Your task to perform on an android device: Open Google Maps Image 0: 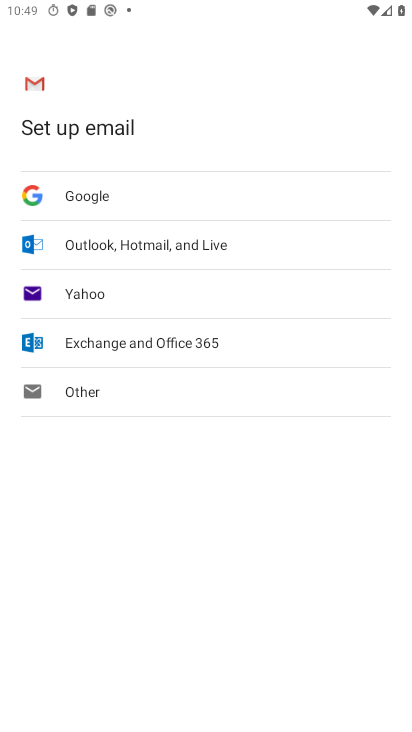
Step 0: press home button
Your task to perform on an android device: Open Google Maps Image 1: 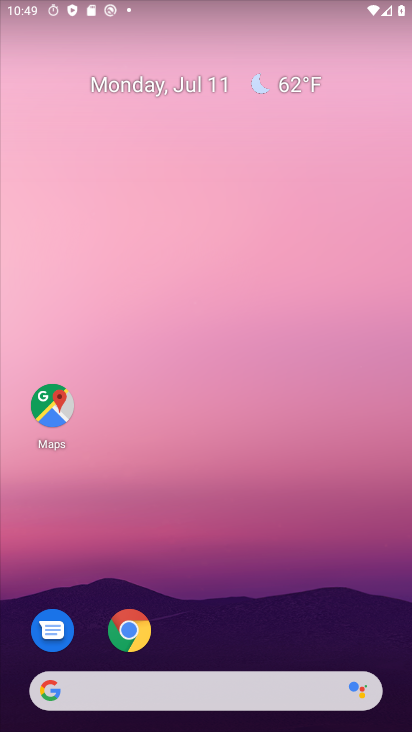
Step 1: click (90, 282)
Your task to perform on an android device: Open Google Maps Image 2: 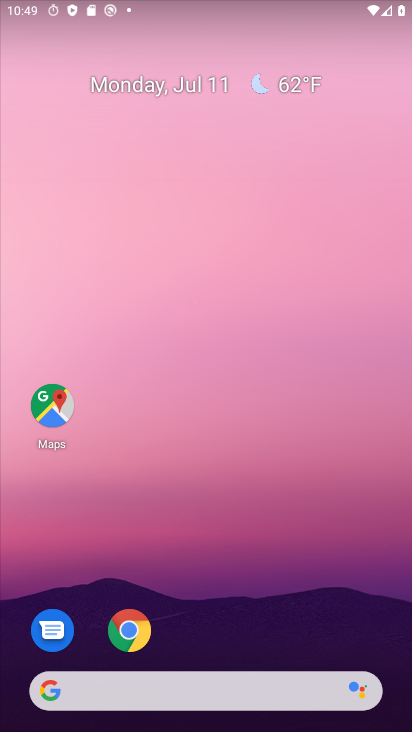
Step 2: drag from (272, 680) to (288, 261)
Your task to perform on an android device: Open Google Maps Image 3: 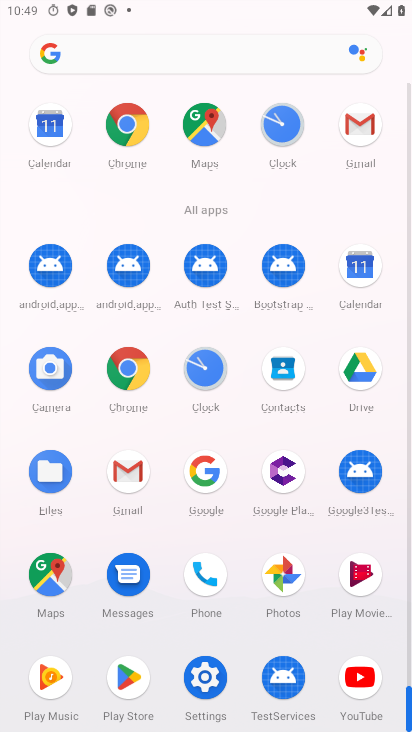
Step 3: click (47, 576)
Your task to perform on an android device: Open Google Maps Image 4: 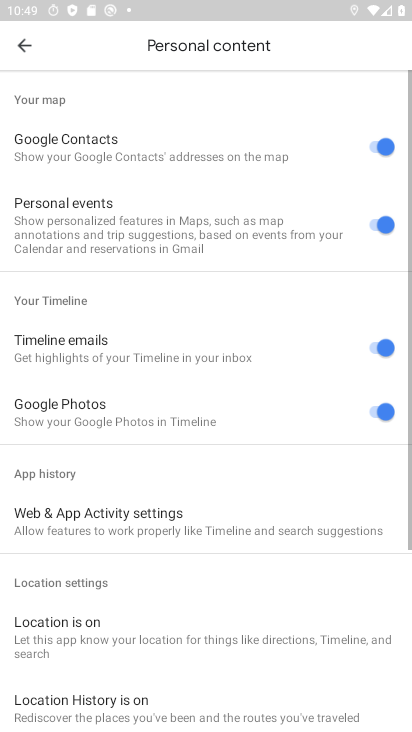
Step 4: task complete